Your task to perform on an android device: visit the assistant section in the google photos Image 0: 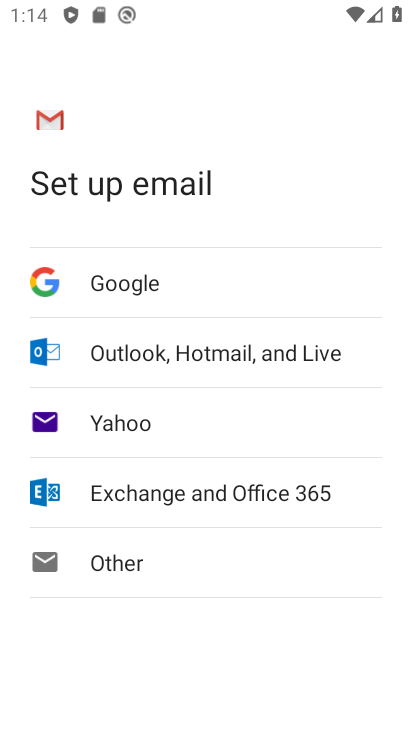
Step 0: press home button
Your task to perform on an android device: visit the assistant section in the google photos Image 1: 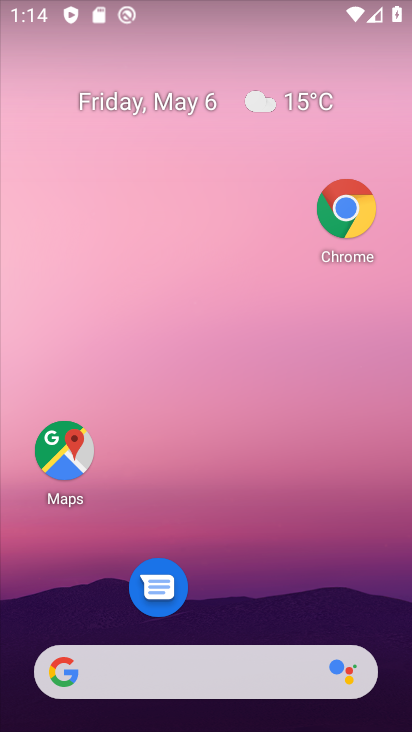
Step 1: click (238, 95)
Your task to perform on an android device: visit the assistant section in the google photos Image 2: 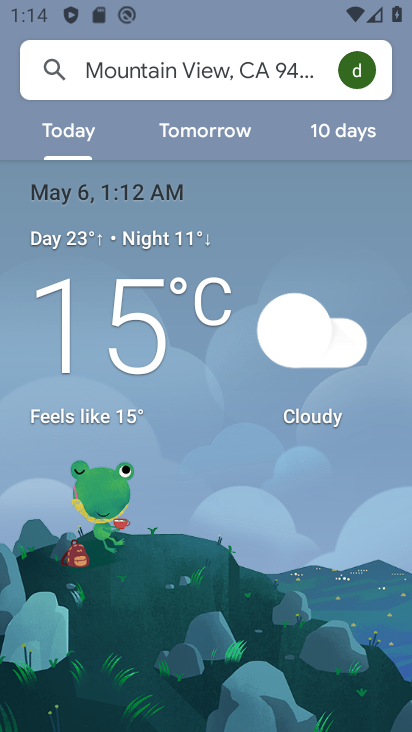
Step 2: press home button
Your task to perform on an android device: visit the assistant section in the google photos Image 3: 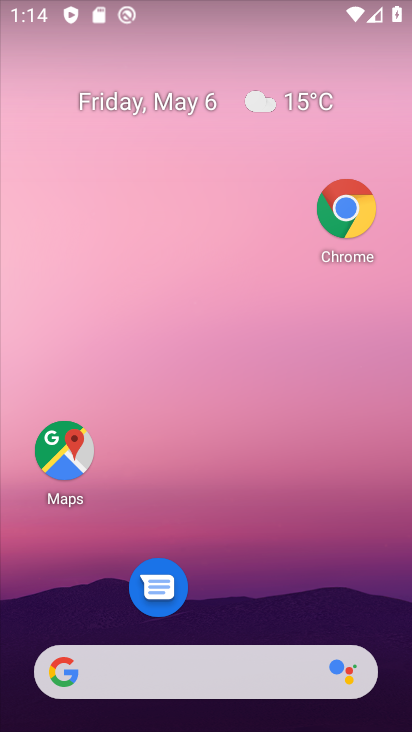
Step 3: drag from (239, 248) to (241, 52)
Your task to perform on an android device: visit the assistant section in the google photos Image 4: 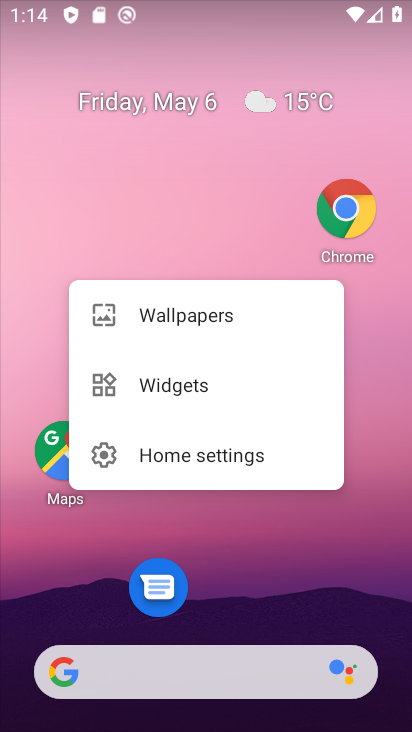
Step 4: drag from (293, 554) to (288, 110)
Your task to perform on an android device: visit the assistant section in the google photos Image 5: 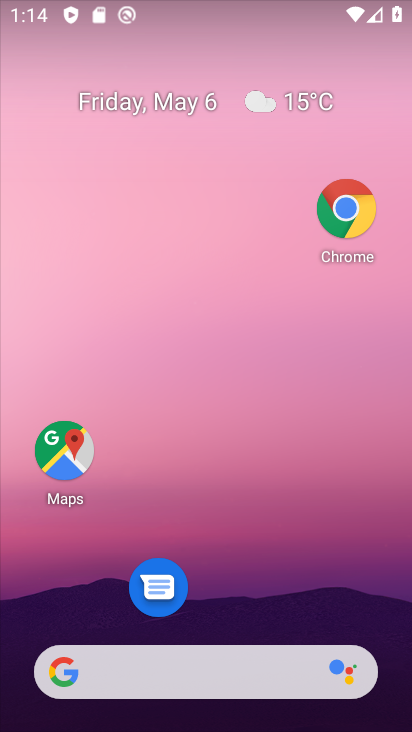
Step 5: drag from (260, 576) to (190, 137)
Your task to perform on an android device: visit the assistant section in the google photos Image 6: 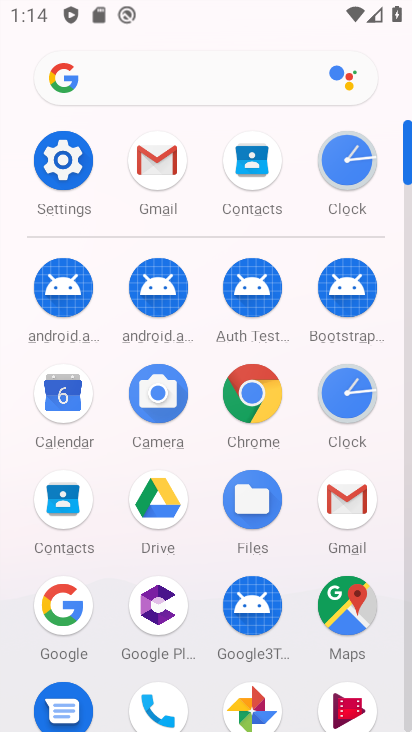
Step 6: click (258, 696)
Your task to perform on an android device: visit the assistant section in the google photos Image 7: 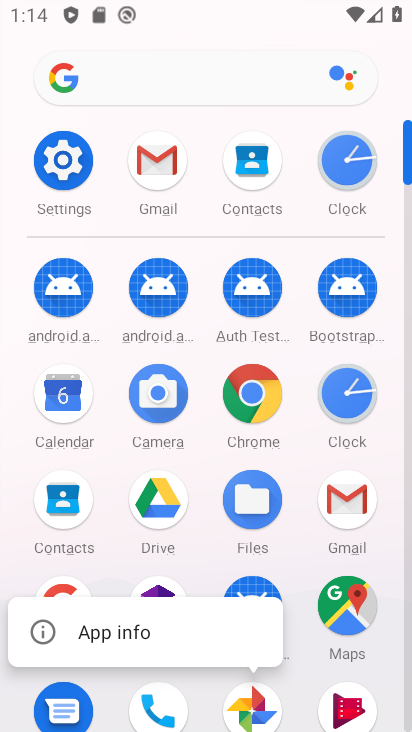
Step 7: click (248, 704)
Your task to perform on an android device: visit the assistant section in the google photos Image 8: 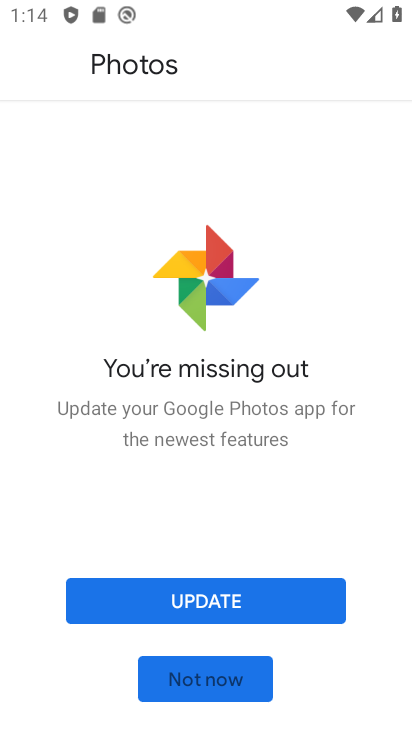
Step 8: click (215, 677)
Your task to perform on an android device: visit the assistant section in the google photos Image 9: 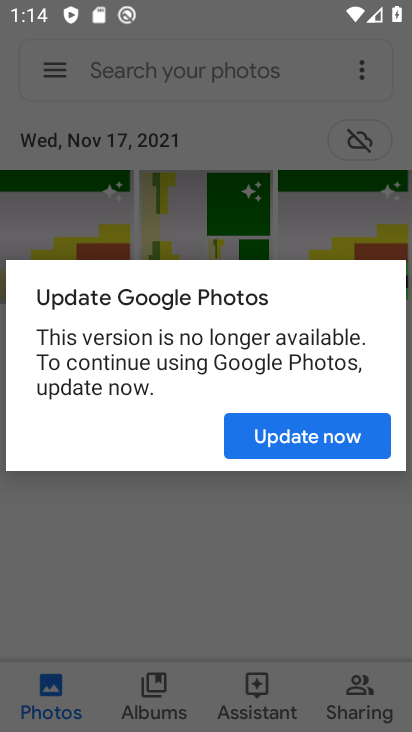
Step 9: click (258, 700)
Your task to perform on an android device: visit the assistant section in the google photos Image 10: 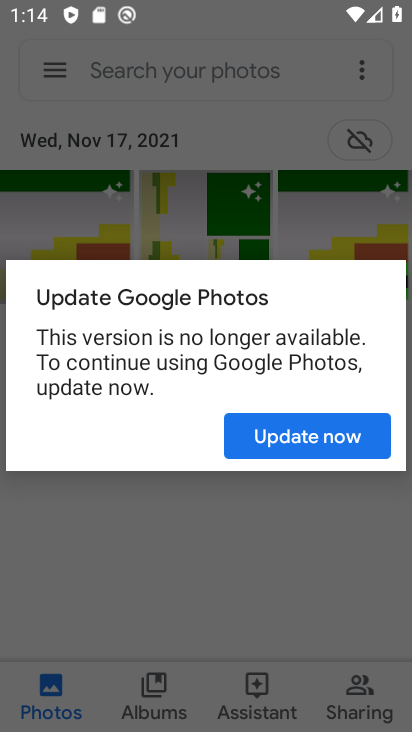
Step 10: click (258, 700)
Your task to perform on an android device: visit the assistant section in the google photos Image 11: 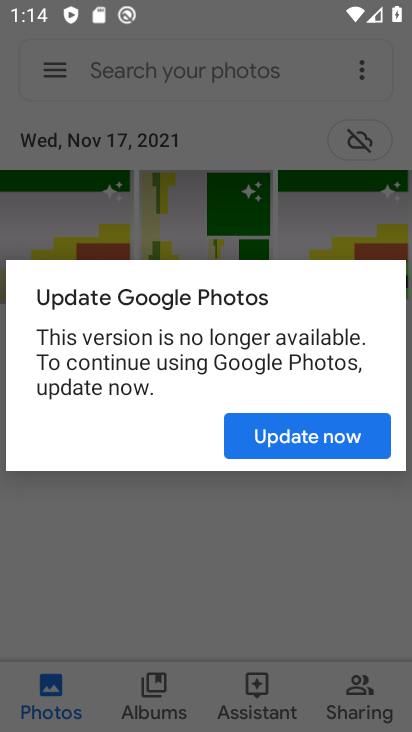
Step 11: click (298, 445)
Your task to perform on an android device: visit the assistant section in the google photos Image 12: 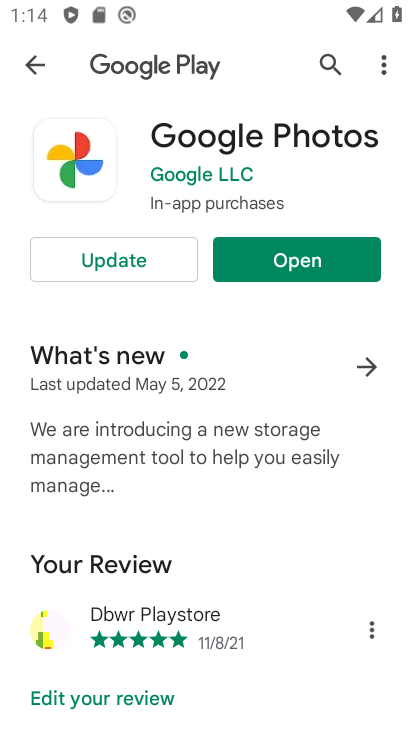
Step 12: click (256, 256)
Your task to perform on an android device: visit the assistant section in the google photos Image 13: 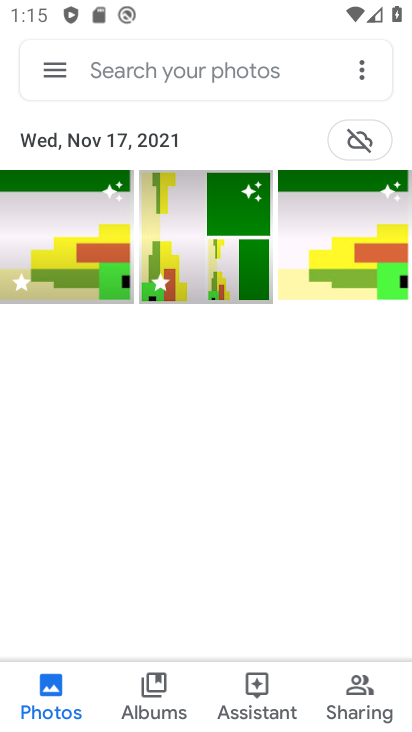
Step 13: click (262, 696)
Your task to perform on an android device: visit the assistant section in the google photos Image 14: 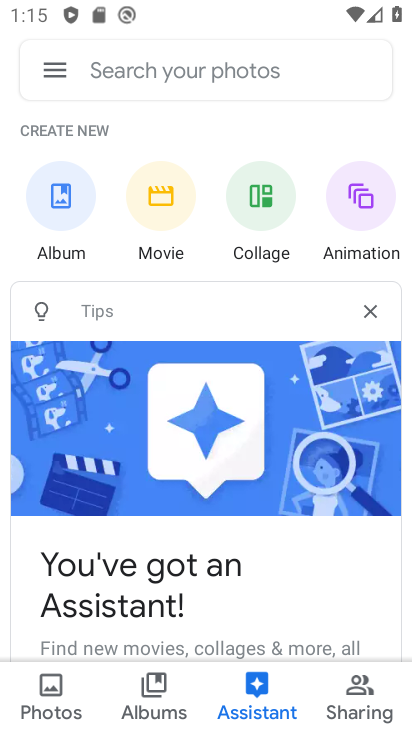
Step 14: task complete